Your task to perform on an android device: Go to battery settings Image 0: 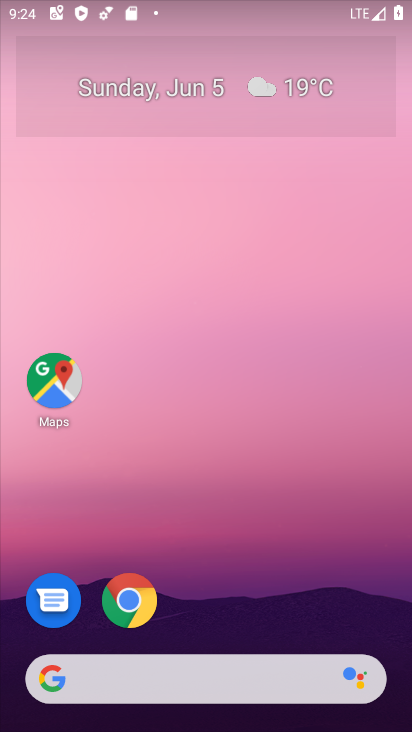
Step 0: drag from (246, 628) to (163, 256)
Your task to perform on an android device: Go to battery settings Image 1: 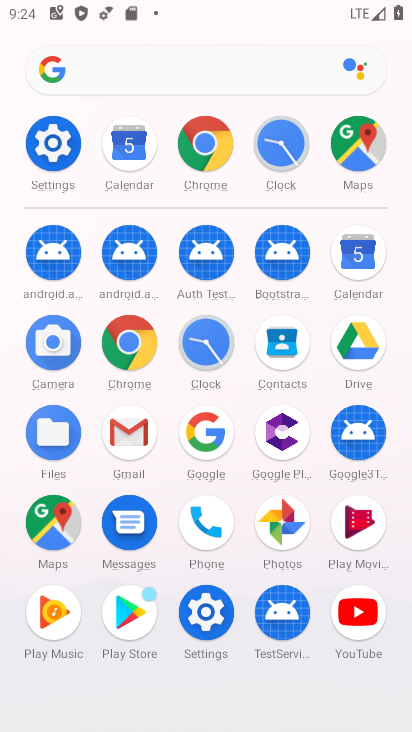
Step 1: click (65, 145)
Your task to perform on an android device: Go to battery settings Image 2: 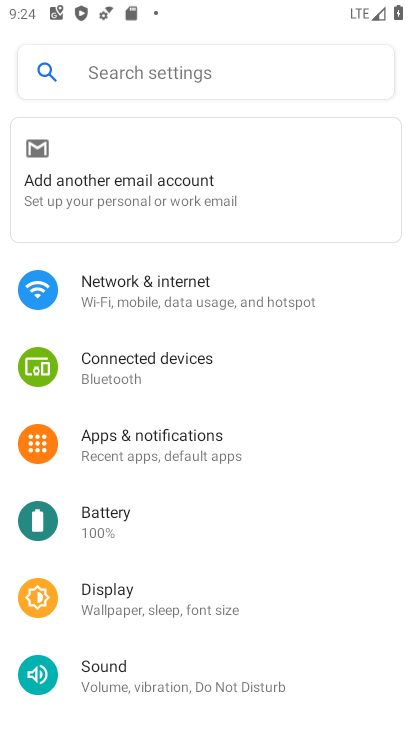
Step 2: click (180, 513)
Your task to perform on an android device: Go to battery settings Image 3: 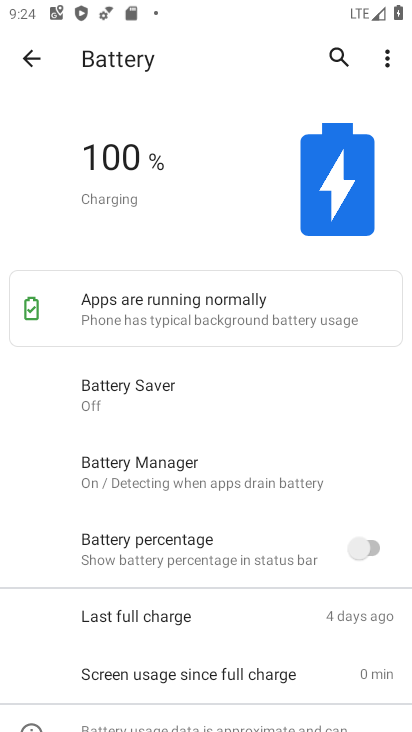
Step 3: task complete